Your task to perform on an android device: Show me popular games on the Play Store Image 0: 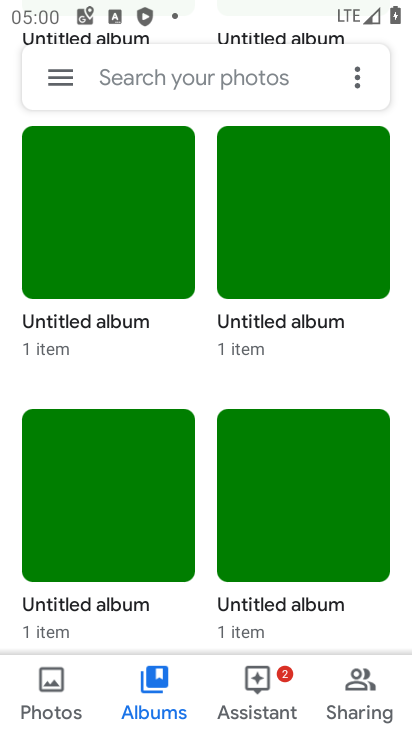
Step 0: press home button
Your task to perform on an android device: Show me popular games on the Play Store Image 1: 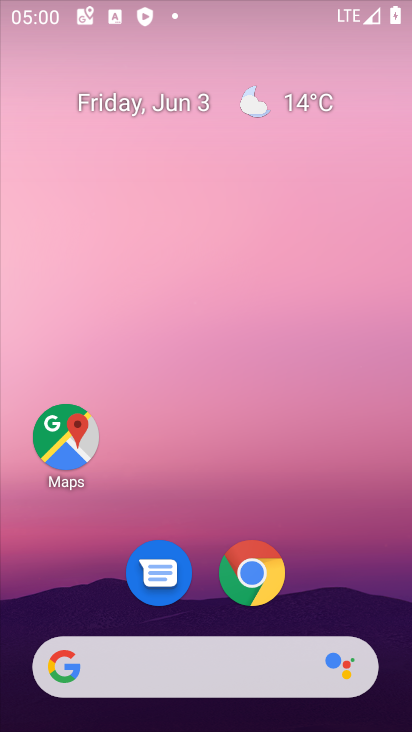
Step 1: drag from (313, 468) to (201, 34)
Your task to perform on an android device: Show me popular games on the Play Store Image 2: 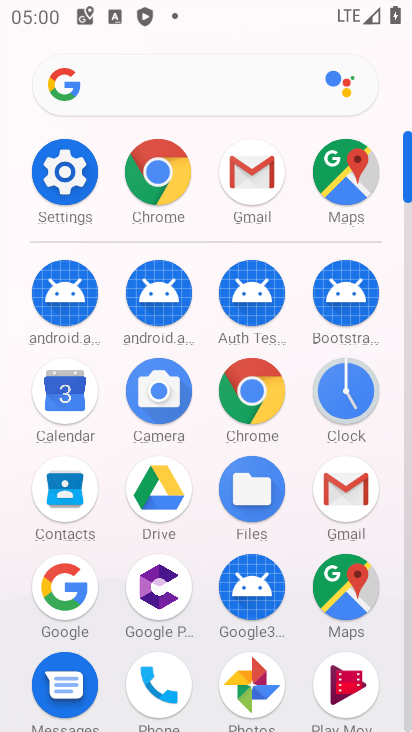
Step 2: drag from (279, 458) to (285, 197)
Your task to perform on an android device: Show me popular games on the Play Store Image 3: 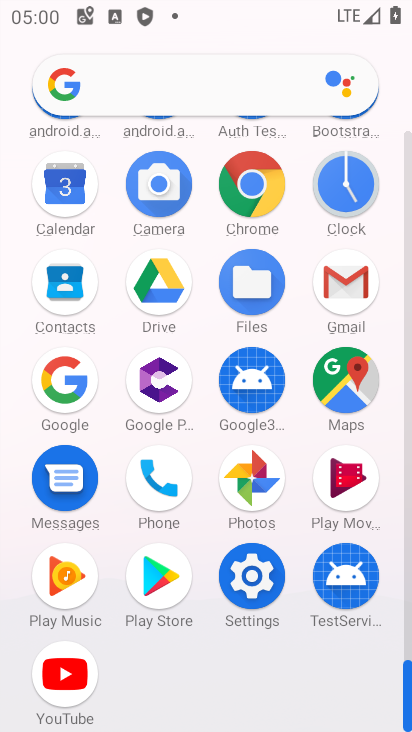
Step 3: click (157, 581)
Your task to perform on an android device: Show me popular games on the Play Store Image 4: 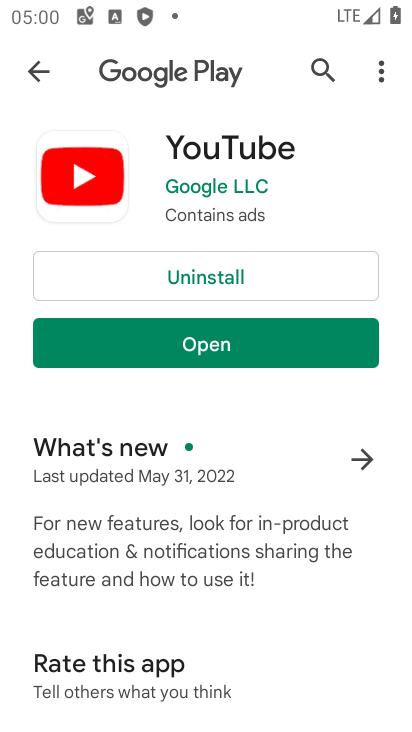
Step 4: press back button
Your task to perform on an android device: Show me popular games on the Play Store Image 5: 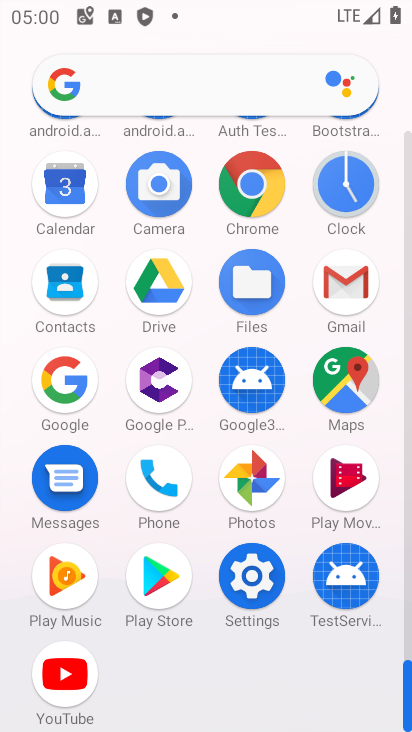
Step 5: click (171, 607)
Your task to perform on an android device: Show me popular games on the Play Store Image 6: 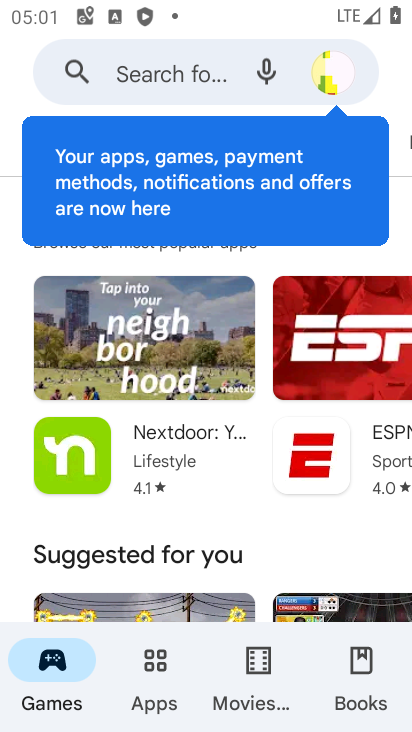
Step 6: click (43, 691)
Your task to perform on an android device: Show me popular games on the Play Store Image 7: 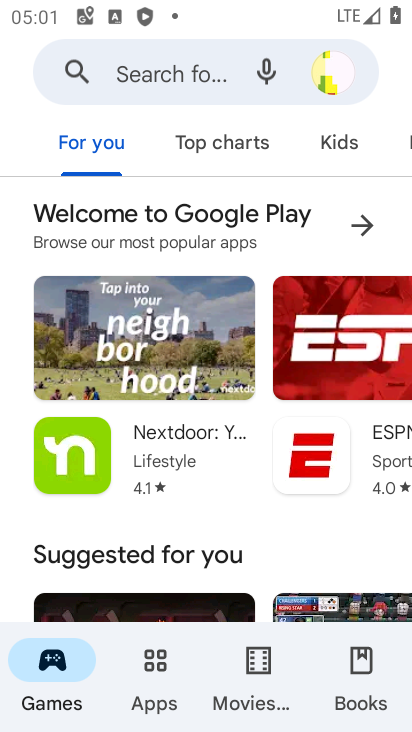
Step 7: drag from (264, 529) to (244, 262)
Your task to perform on an android device: Show me popular games on the Play Store Image 8: 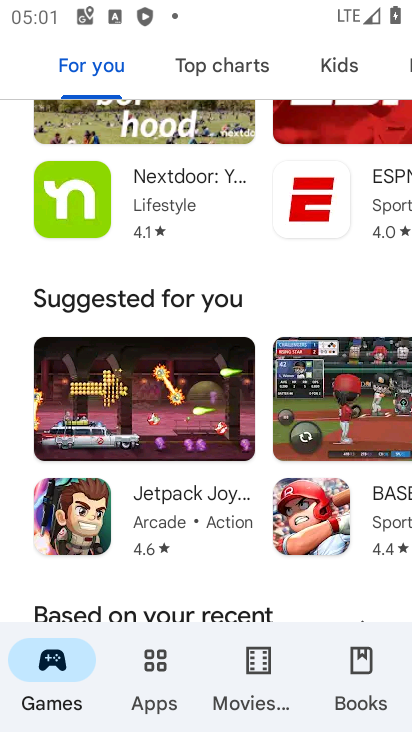
Step 8: drag from (327, 61) to (94, 55)
Your task to perform on an android device: Show me popular games on the Play Store Image 9: 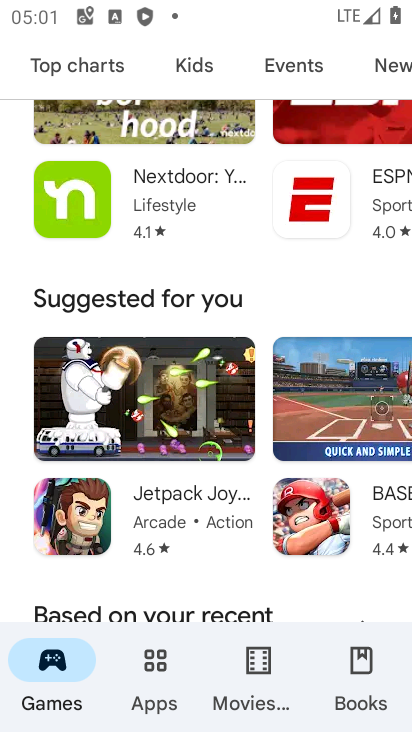
Step 9: drag from (268, 339) to (299, 168)
Your task to perform on an android device: Show me popular games on the Play Store Image 10: 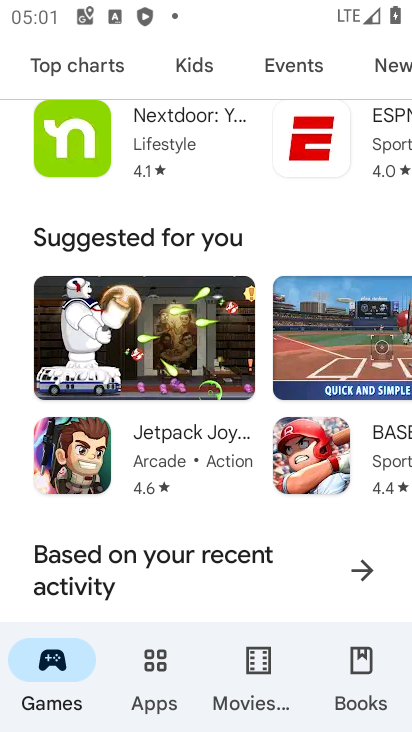
Step 10: drag from (251, 520) to (246, 241)
Your task to perform on an android device: Show me popular games on the Play Store Image 11: 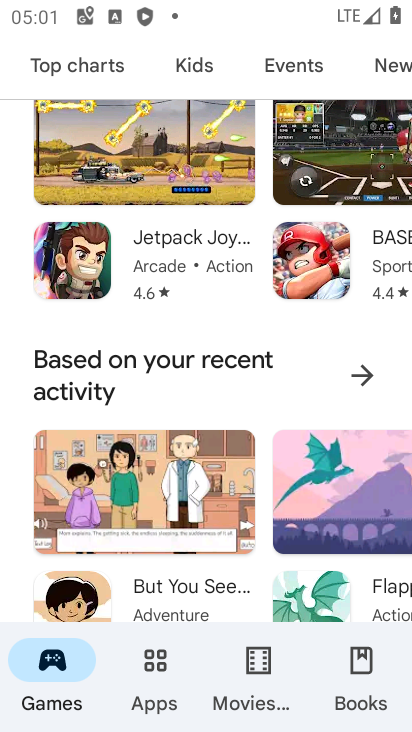
Step 11: drag from (243, 454) to (247, 168)
Your task to perform on an android device: Show me popular games on the Play Store Image 12: 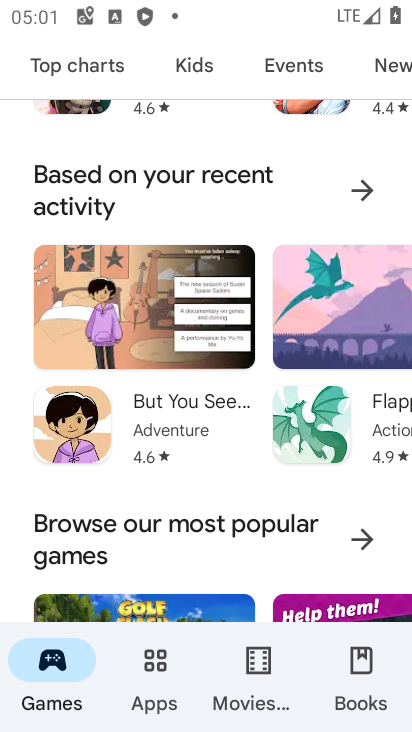
Step 12: click (360, 538)
Your task to perform on an android device: Show me popular games on the Play Store Image 13: 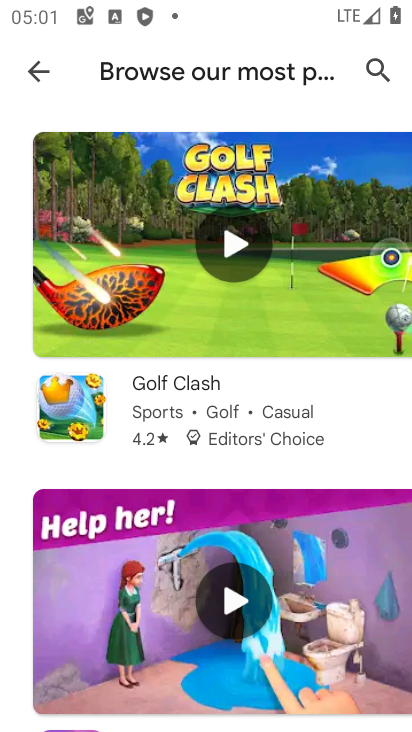
Step 13: task complete